Your task to perform on an android device: What's on my calendar tomorrow? Image 0: 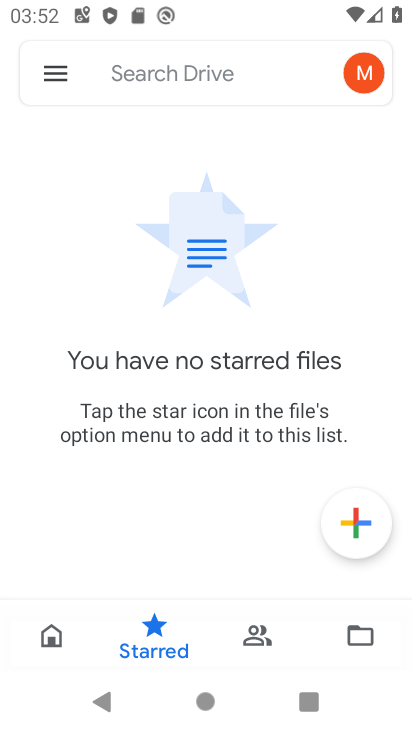
Step 0: press home button
Your task to perform on an android device: What's on my calendar tomorrow? Image 1: 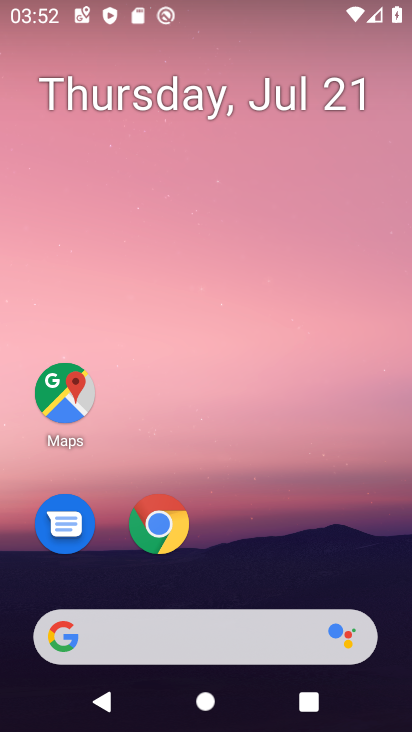
Step 1: drag from (173, 419) to (273, 4)
Your task to perform on an android device: What's on my calendar tomorrow? Image 2: 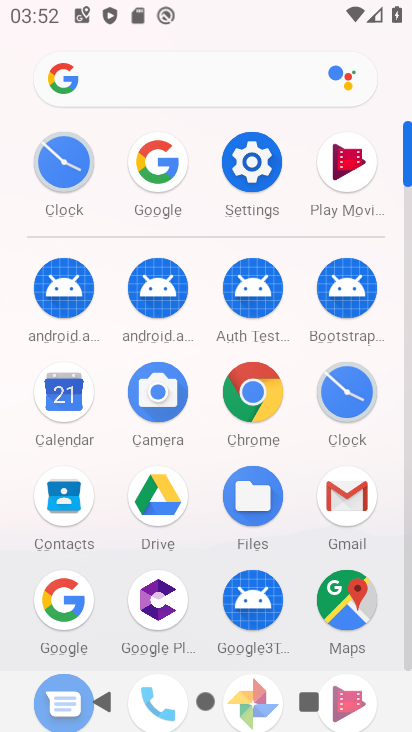
Step 2: click (58, 392)
Your task to perform on an android device: What's on my calendar tomorrow? Image 3: 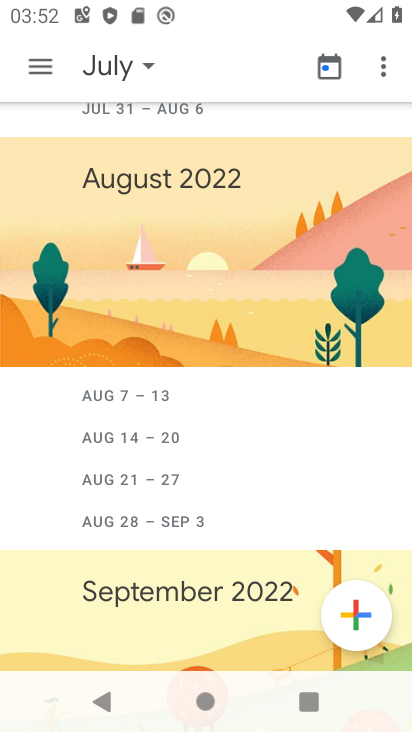
Step 3: drag from (203, 231) to (214, 637)
Your task to perform on an android device: What's on my calendar tomorrow? Image 4: 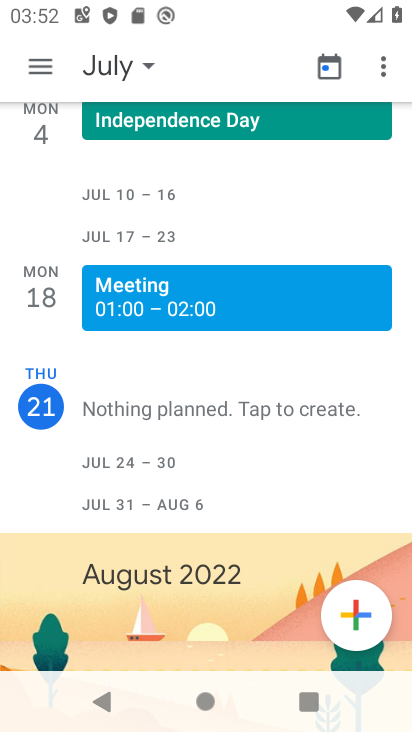
Step 4: click (44, 400)
Your task to perform on an android device: What's on my calendar tomorrow? Image 5: 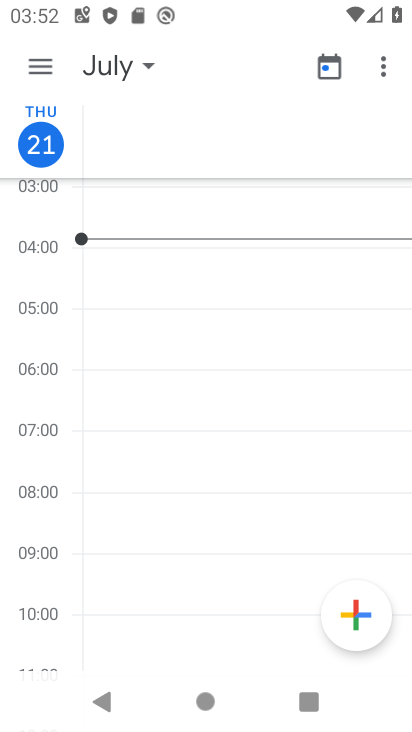
Step 5: click (44, 70)
Your task to perform on an android device: What's on my calendar tomorrow? Image 6: 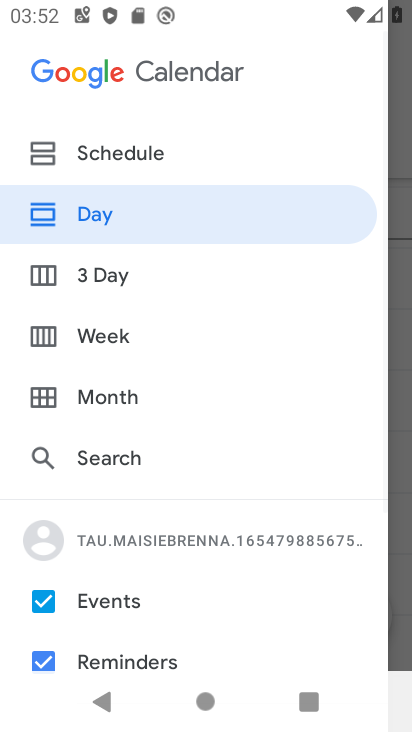
Step 6: click (82, 278)
Your task to perform on an android device: What's on my calendar tomorrow? Image 7: 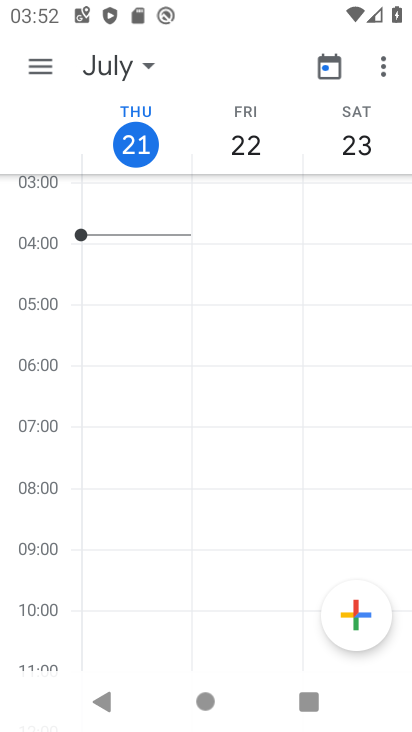
Step 7: task complete